Your task to perform on an android device: turn on improve location accuracy Image 0: 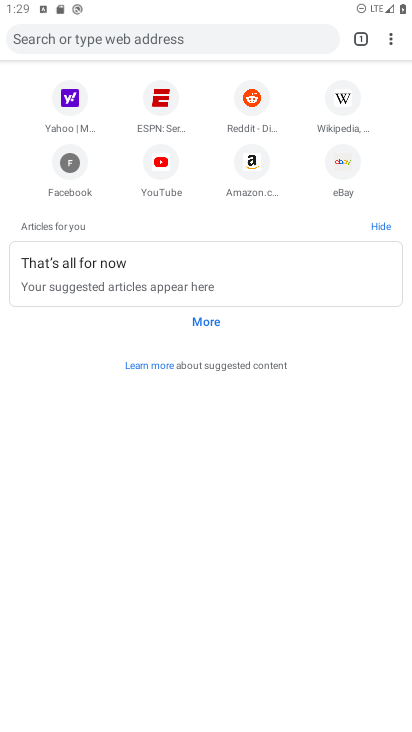
Step 0: press home button
Your task to perform on an android device: turn on improve location accuracy Image 1: 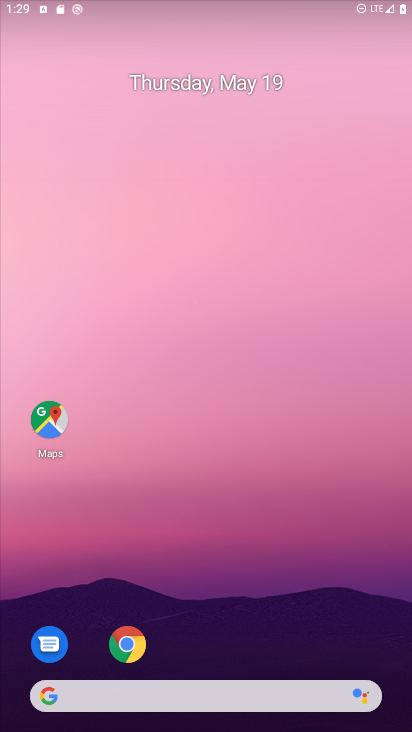
Step 1: drag from (286, 616) to (177, 166)
Your task to perform on an android device: turn on improve location accuracy Image 2: 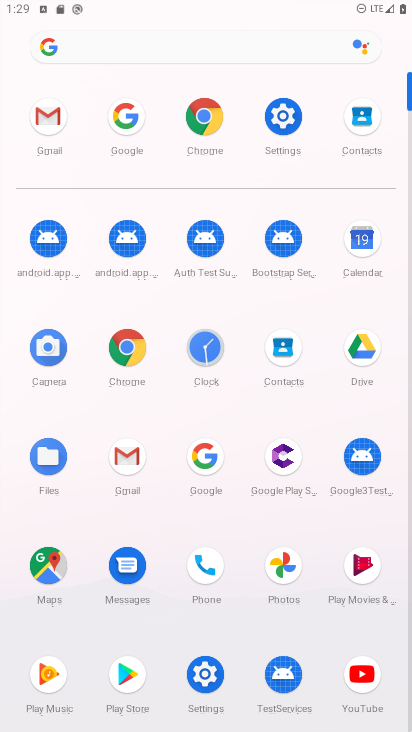
Step 2: click (206, 677)
Your task to perform on an android device: turn on improve location accuracy Image 3: 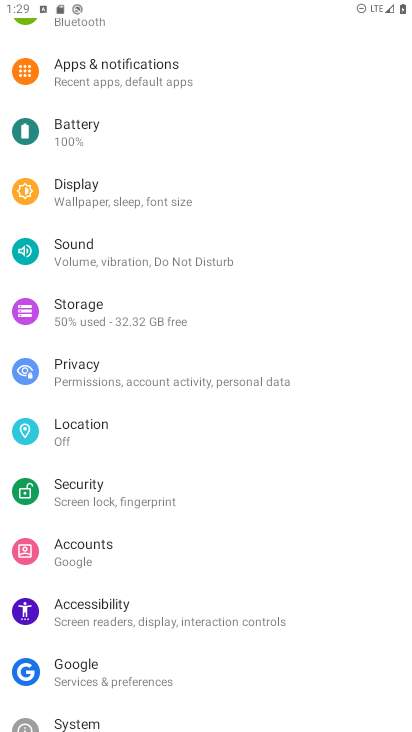
Step 3: drag from (193, 665) to (196, 293)
Your task to perform on an android device: turn on improve location accuracy Image 4: 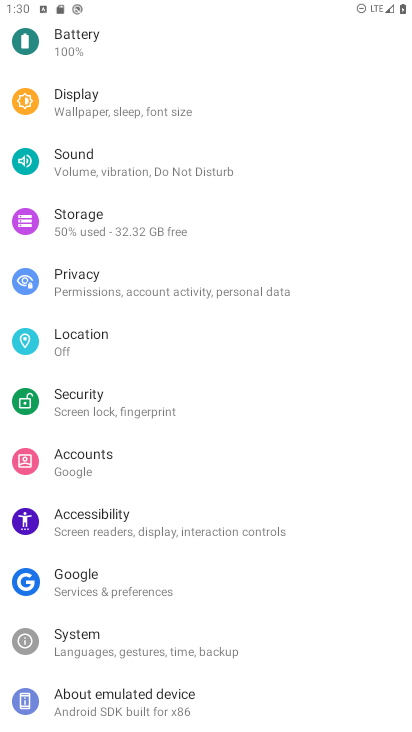
Step 4: click (97, 340)
Your task to perform on an android device: turn on improve location accuracy Image 5: 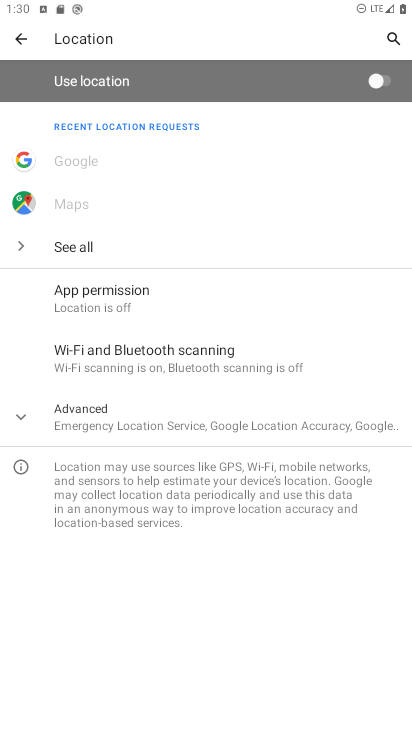
Step 5: click (102, 412)
Your task to perform on an android device: turn on improve location accuracy Image 6: 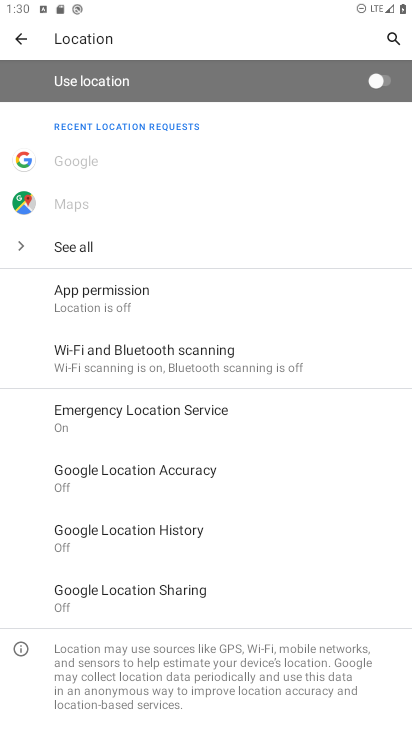
Step 6: click (167, 487)
Your task to perform on an android device: turn on improve location accuracy Image 7: 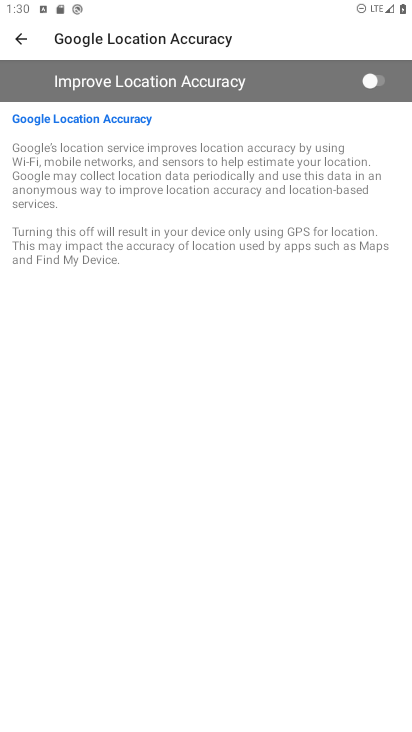
Step 7: click (359, 79)
Your task to perform on an android device: turn on improve location accuracy Image 8: 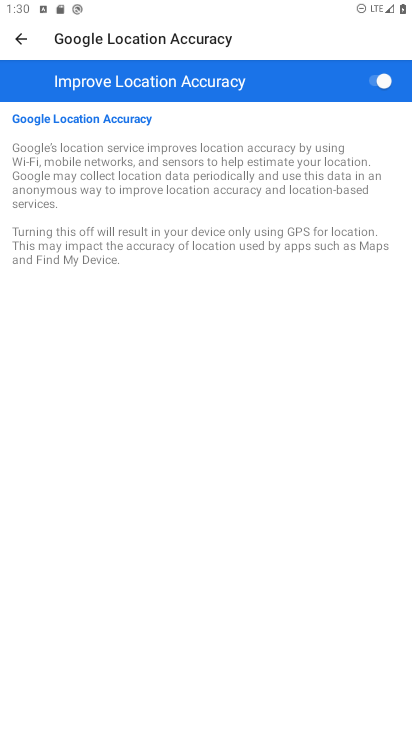
Step 8: task complete